Your task to perform on an android device: turn off data saver in the chrome app Image 0: 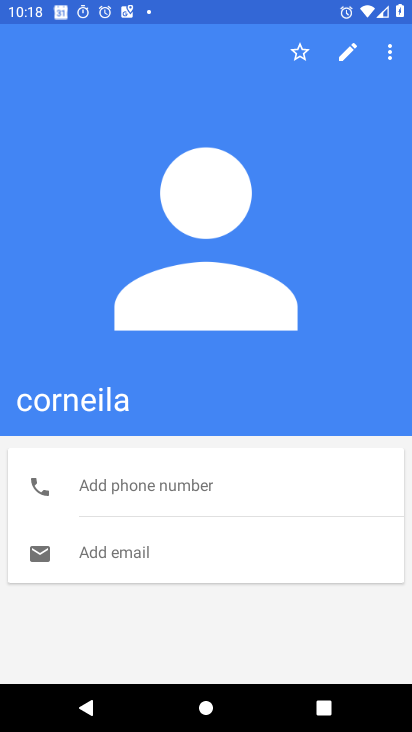
Step 0: press home button
Your task to perform on an android device: turn off data saver in the chrome app Image 1: 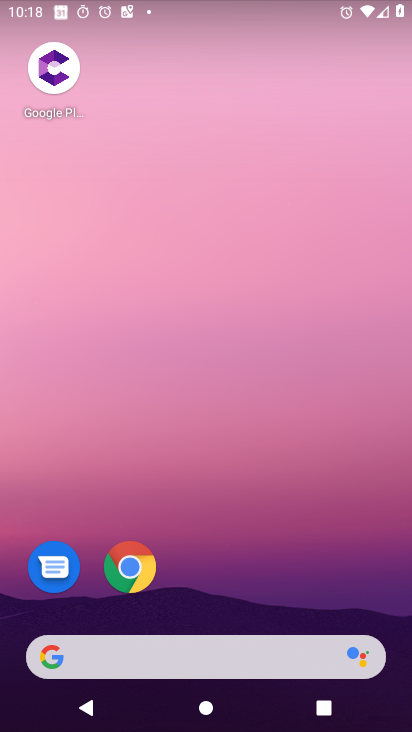
Step 1: click (126, 567)
Your task to perform on an android device: turn off data saver in the chrome app Image 2: 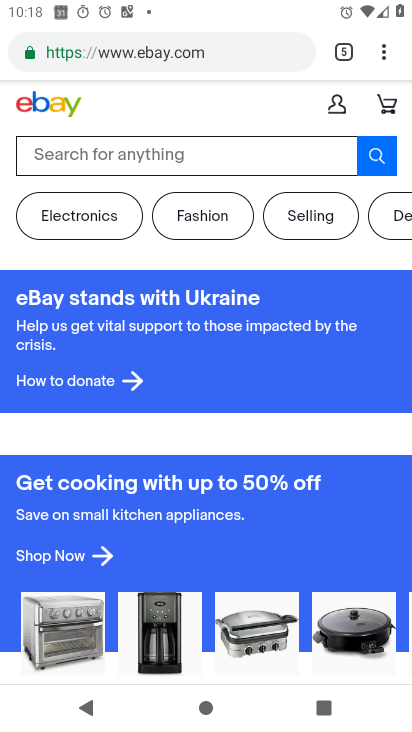
Step 2: click (386, 52)
Your task to perform on an android device: turn off data saver in the chrome app Image 3: 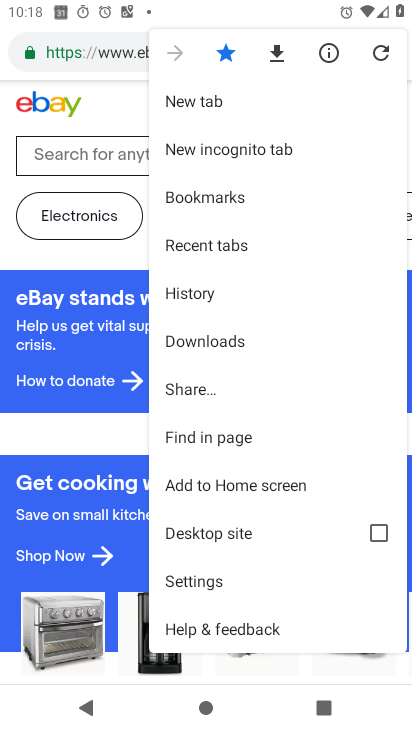
Step 3: click (214, 583)
Your task to perform on an android device: turn off data saver in the chrome app Image 4: 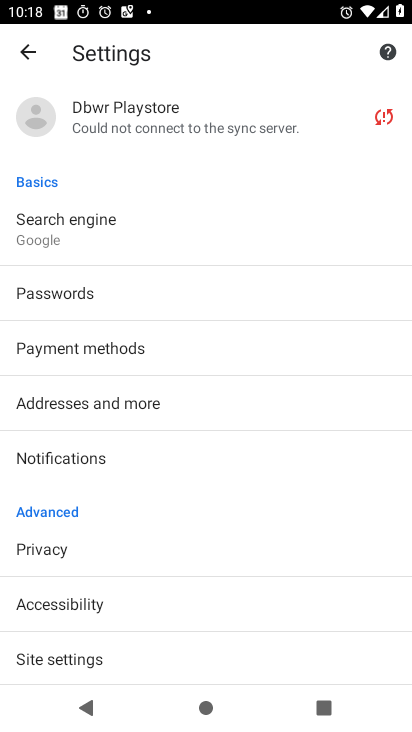
Step 4: drag from (66, 597) to (116, 282)
Your task to perform on an android device: turn off data saver in the chrome app Image 5: 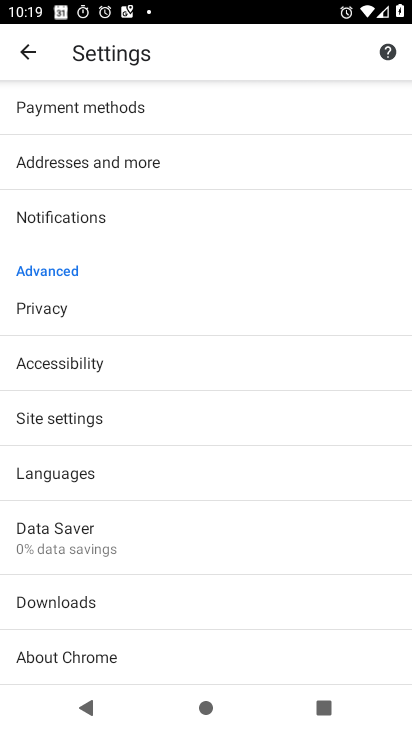
Step 5: click (76, 548)
Your task to perform on an android device: turn off data saver in the chrome app Image 6: 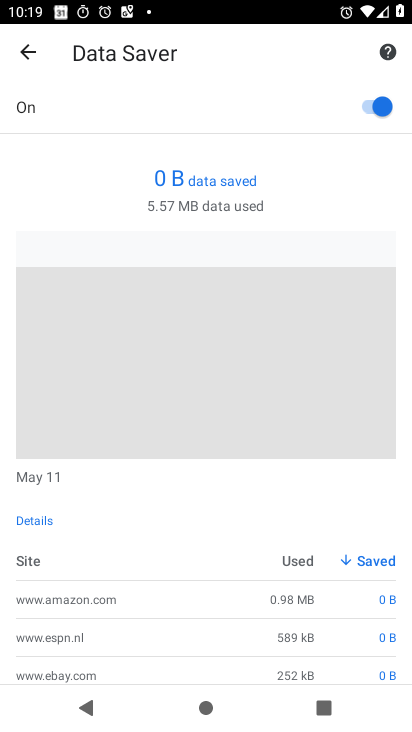
Step 6: click (353, 101)
Your task to perform on an android device: turn off data saver in the chrome app Image 7: 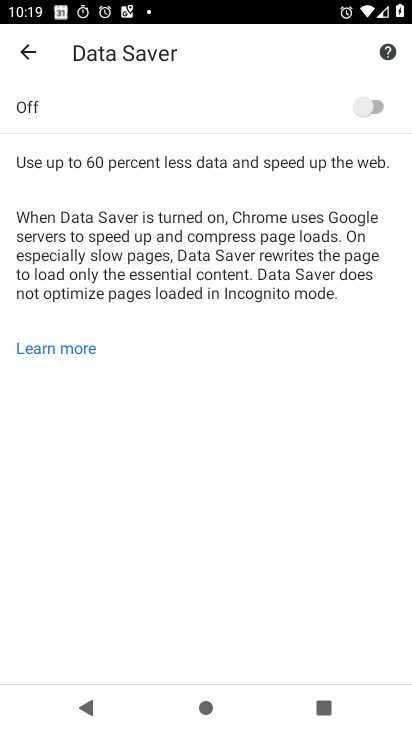
Step 7: task complete